Your task to perform on an android device: turn notification dots on Image 0: 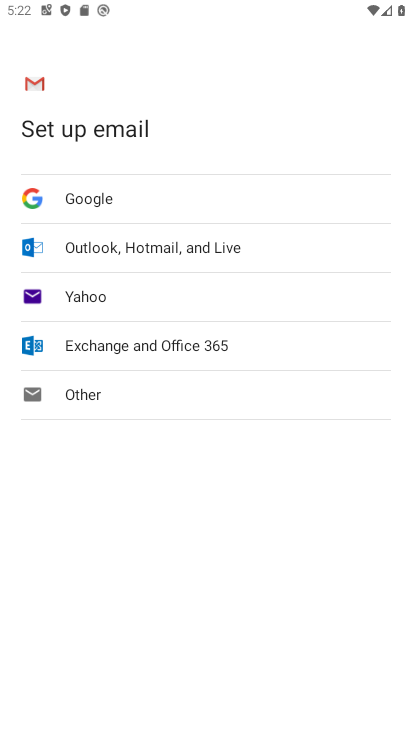
Step 0: press home button
Your task to perform on an android device: turn notification dots on Image 1: 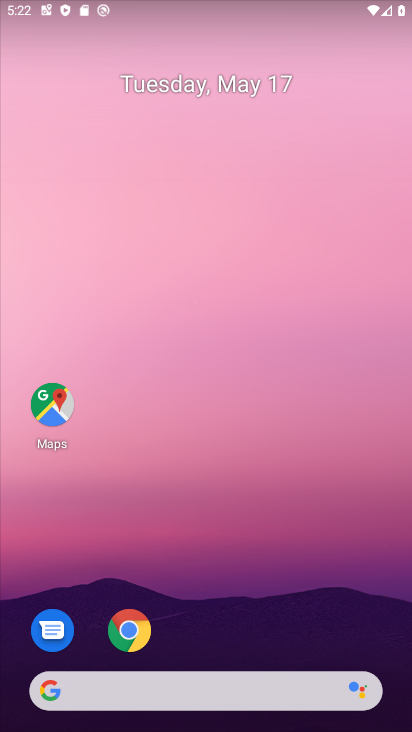
Step 1: drag from (315, 592) to (231, 79)
Your task to perform on an android device: turn notification dots on Image 2: 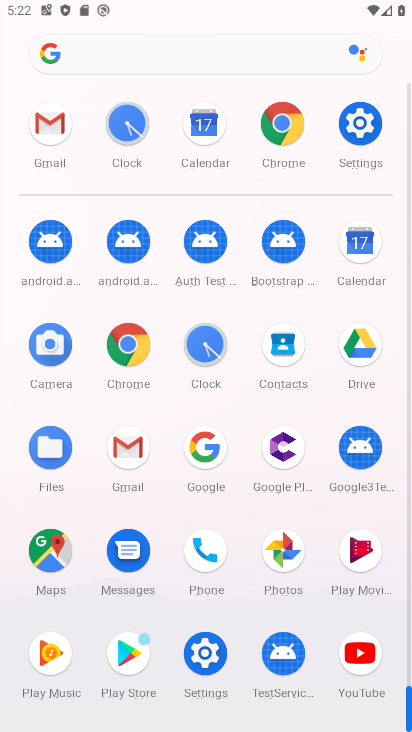
Step 2: click (369, 120)
Your task to perform on an android device: turn notification dots on Image 3: 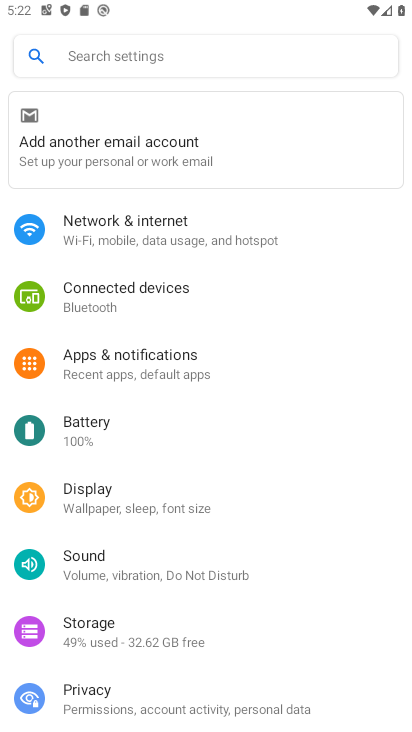
Step 3: click (155, 365)
Your task to perform on an android device: turn notification dots on Image 4: 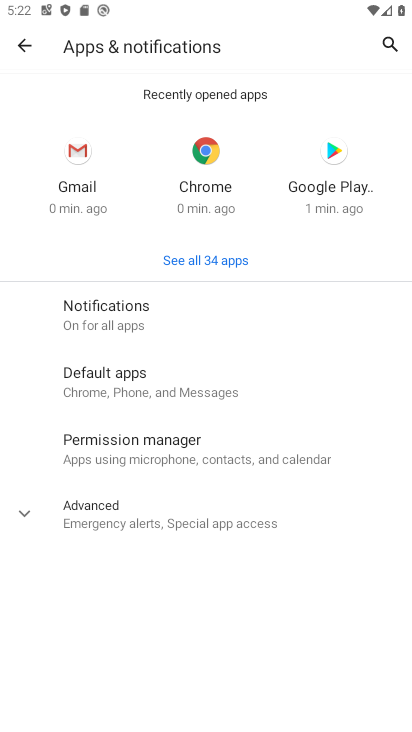
Step 4: click (135, 322)
Your task to perform on an android device: turn notification dots on Image 5: 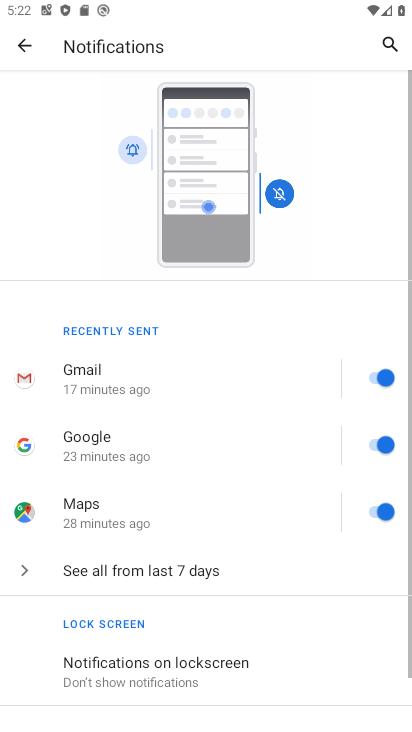
Step 5: drag from (206, 617) to (212, 131)
Your task to perform on an android device: turn notification dots on Image 6: 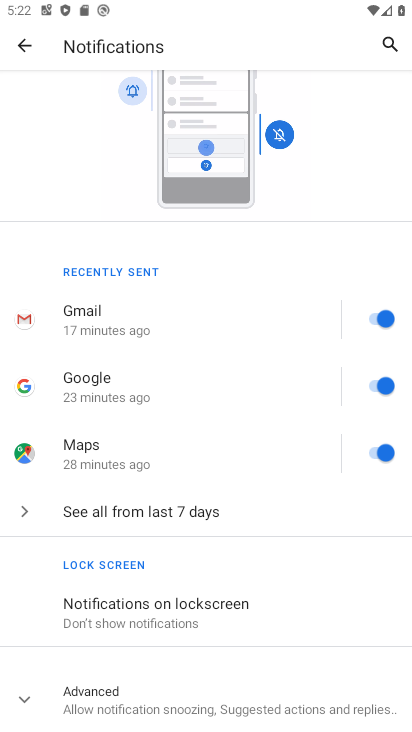
Step 6: click (120, 719)
Your task to perform on an android device: turn notification dots on Image 7: 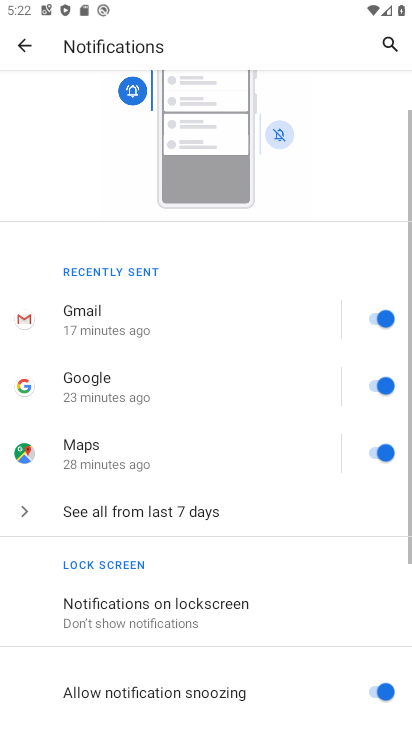
Step 7: task complete